Your task to perform on an android device: change the clock display to analog Image 0: 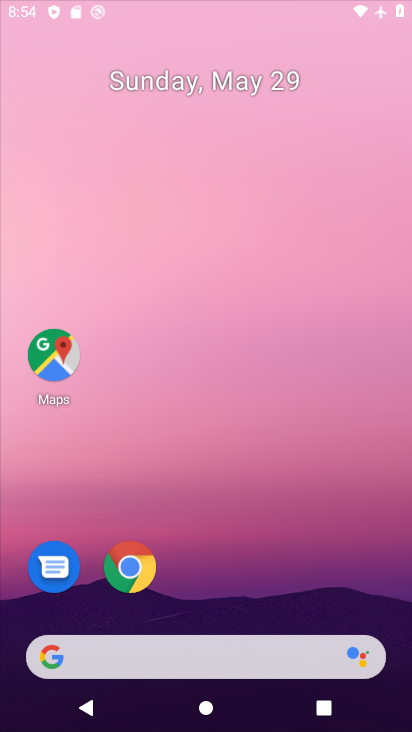
Step 0: click (266, 63)
Your task to perform on an android device: change the clock display to analog Image 1: 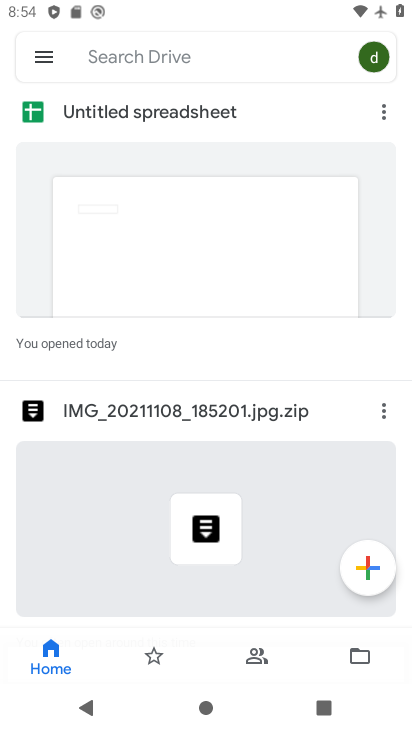
Step 1: press home button
Your task to perform on an android device: change the clock display to analog Image 2: 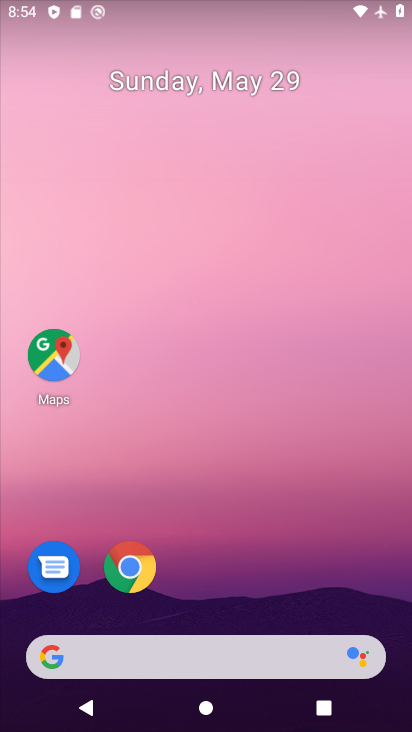
Step 2: drag from (372, 600) to (376, 180)
Your task to perform on an android device: change the clock display to analog Image 3: 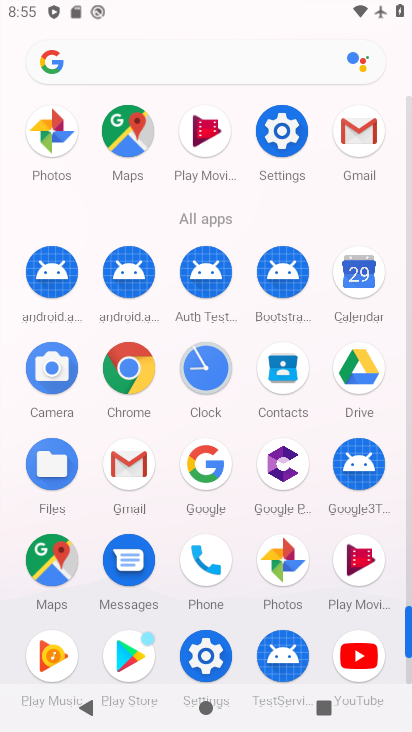
Step 3: click (209, 370)
Your task to perform on an android device: change the clock display to analog Image 4: 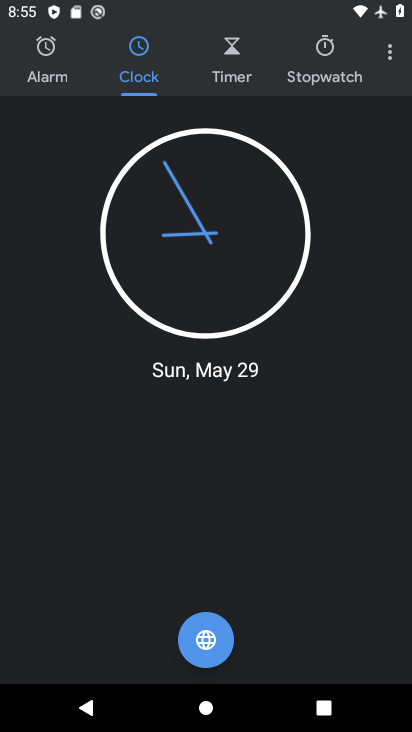
Step 4: click (390, 59)
Your task to perform on an android device: change the clock display to analog Image 5: 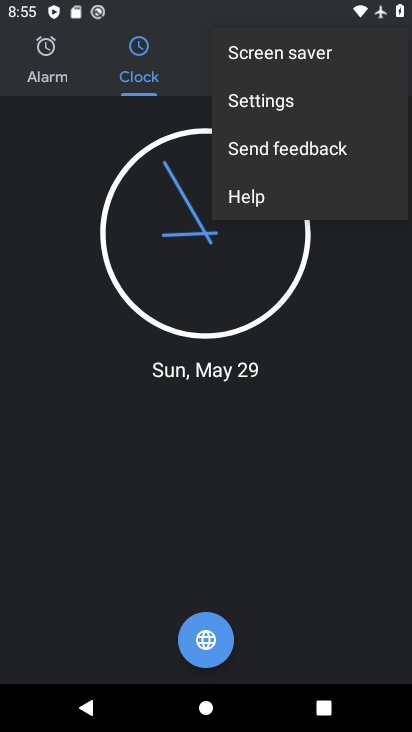
Step 5: click (245, 97)
Your task to perform on an android device: change the clock display to analog Image 6: 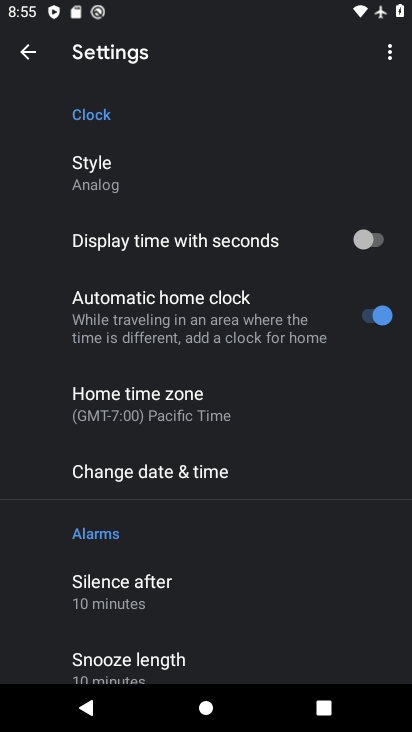
Step 6: task complete